Your task to perform on an android device: Open battery settings Image 0: 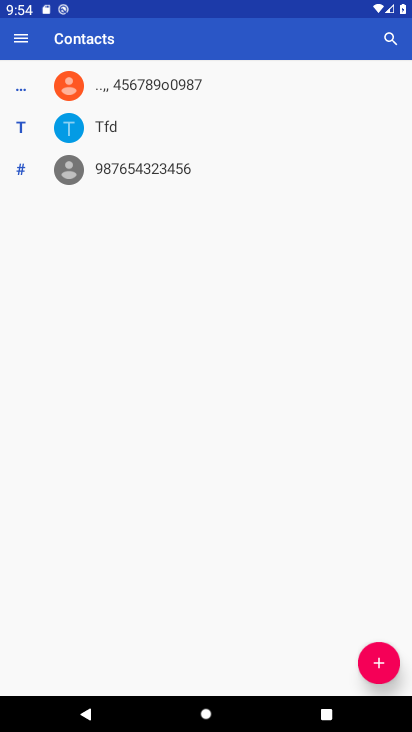
Step 0: press home button
Your task to perform on an android device: Open battery settings Image 1: 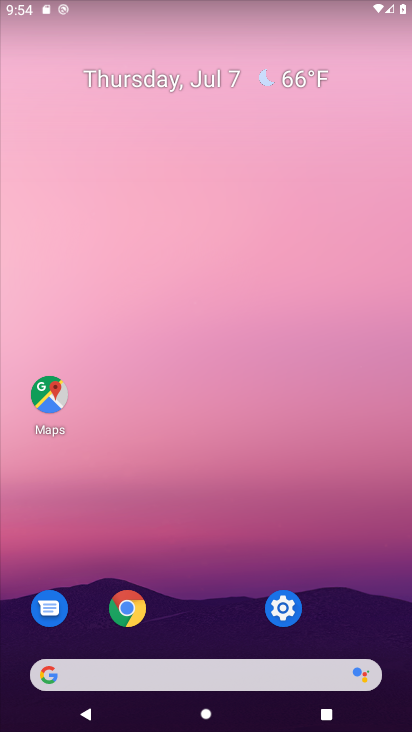
Step 1: drag from (288, 686) to (272, 146)
Your task to perform on an android device: Open battery settings Image 2: 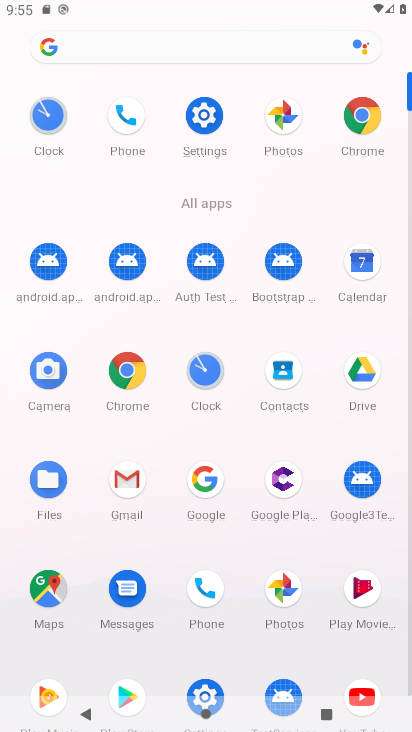
Step 2: click (211, 682)
Your task to perform on an android device: Open battery settings Image 3: 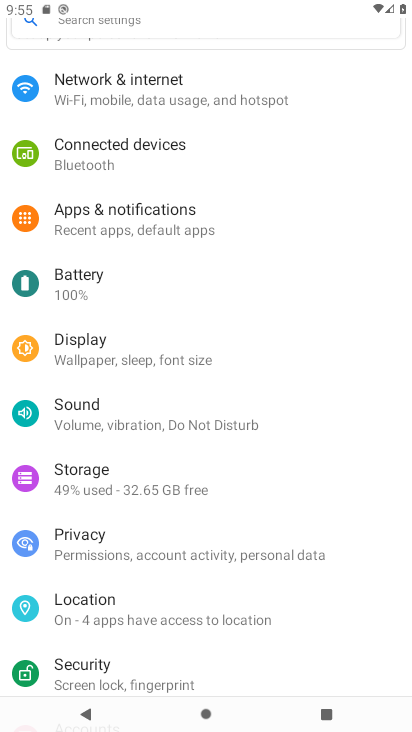
Step 3: click (140, 281)
Your task to perform on an android device: Open battery settings Image 4: 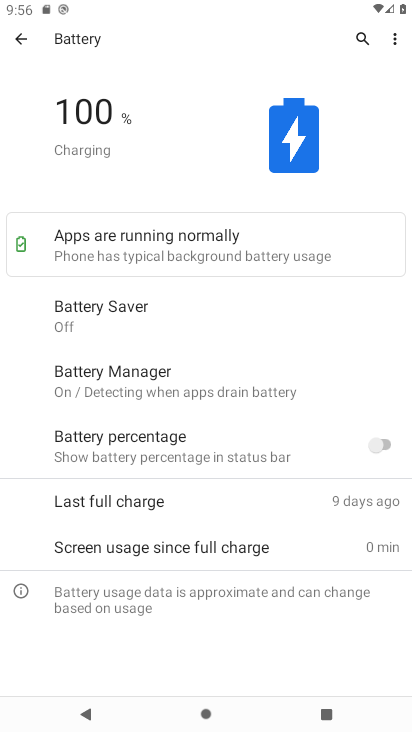
Step 4: task complete